Your task to perform on an android device: Open calendar and show me the second week of next month Image 0: 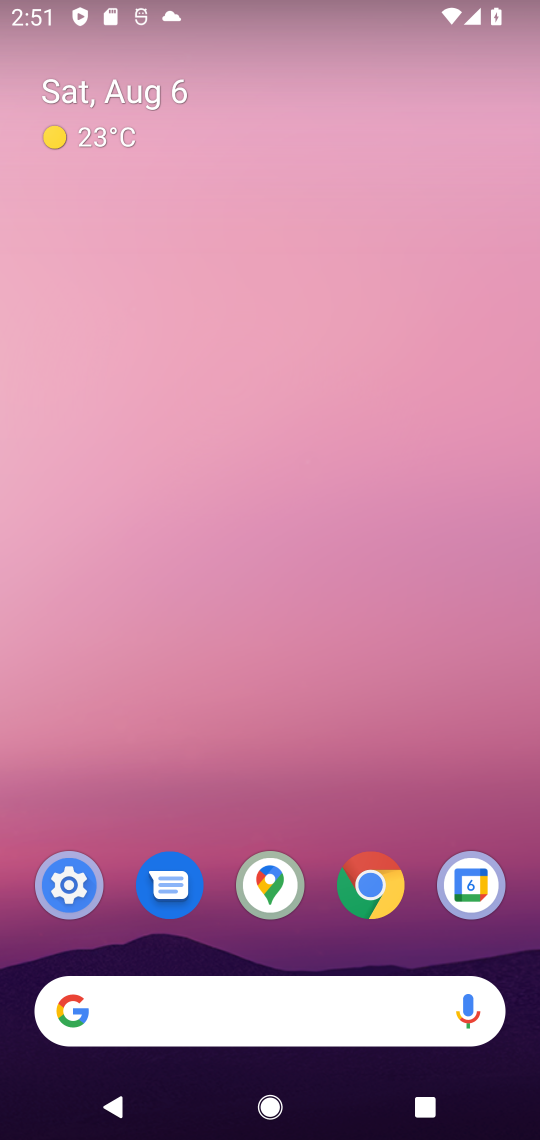
Step 0: drag from (530, 896) to (318, 96)
Your task to perform on an android device: Open calendar and show me the second week of next month Image 1: 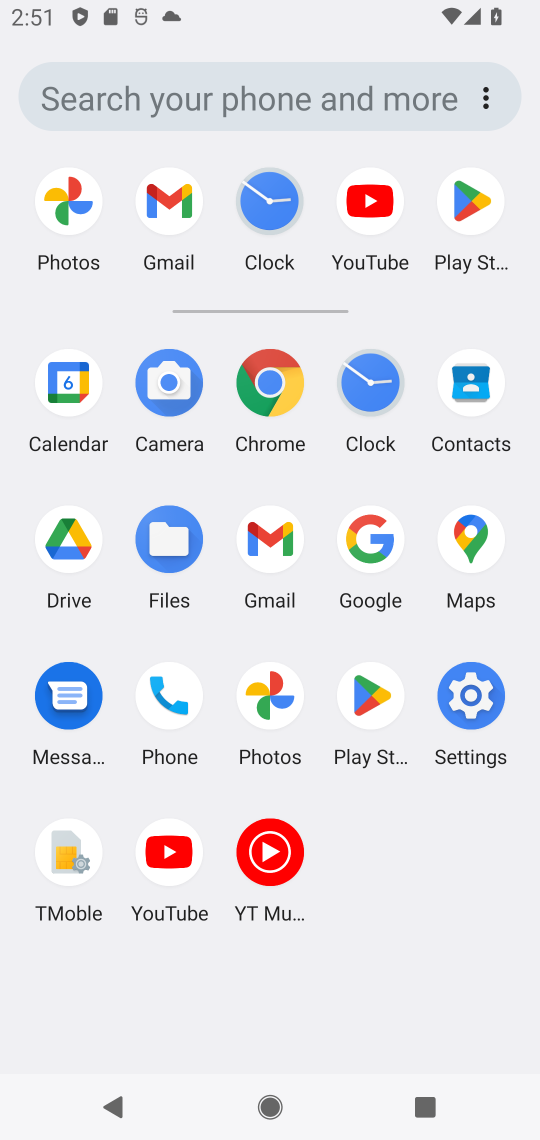
Step 1: click (74, 372)
Your task to perform on an android device: Open calendar and show me the second week of next month Image 2: 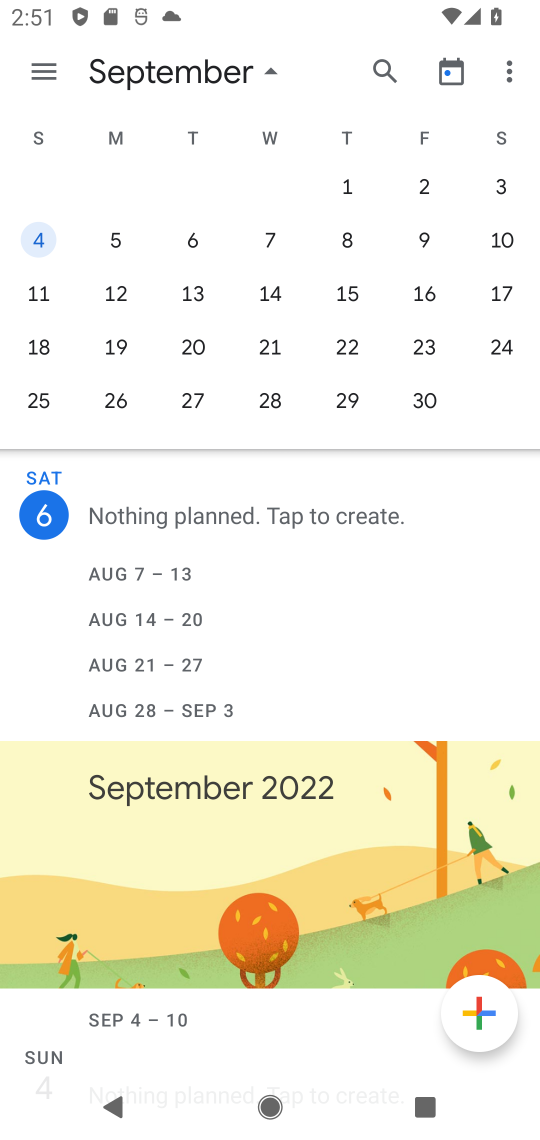
Step 2: drag from (505, 229) to (38, 373)
Your task to perform on an android device: Open calendar and show me the second week of next month Image 3: 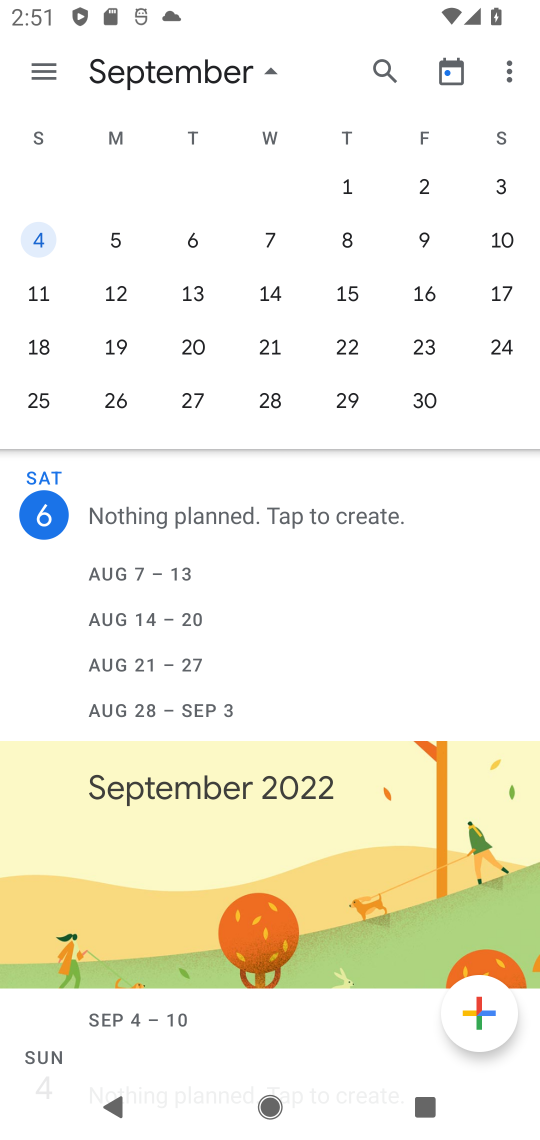
Step 3: drag from (497, 326) to (2, 355)
Your task to perform on an android device: Open calendar and show me the second week of next month Image 4: 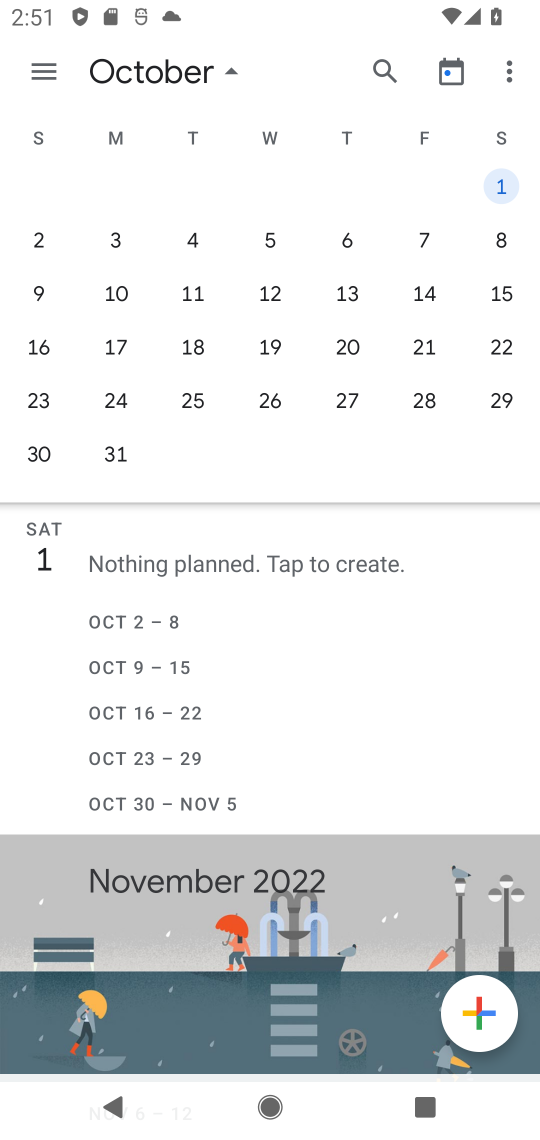
Step 4: click (42, 301)
Your task to perform on an android device: Open calendar and show me the second week of next month Image 5: 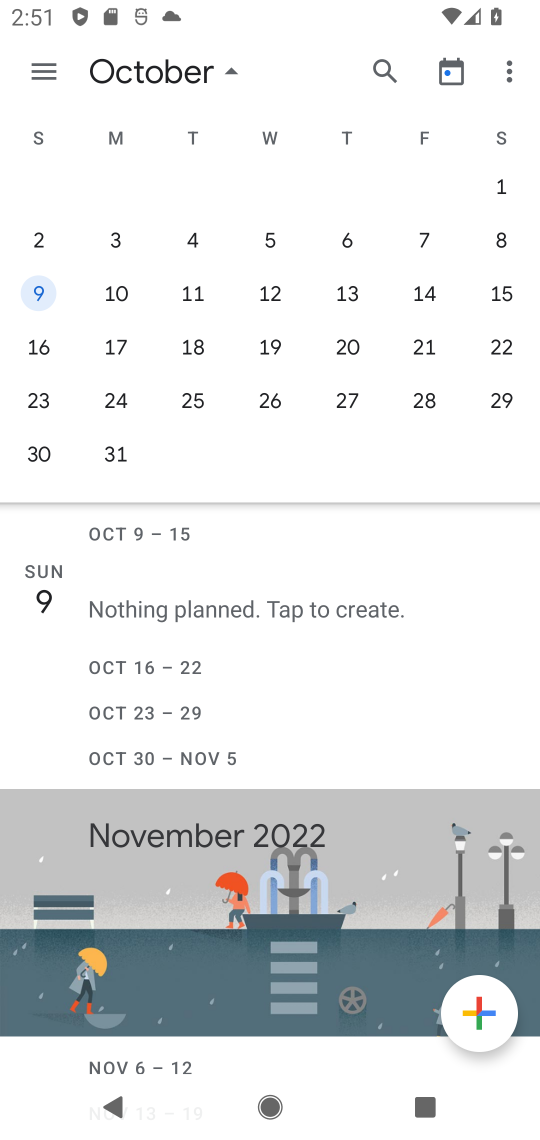
Step 5: task complete